Your task to perform on an android device: Open Google Chrome Image 0: 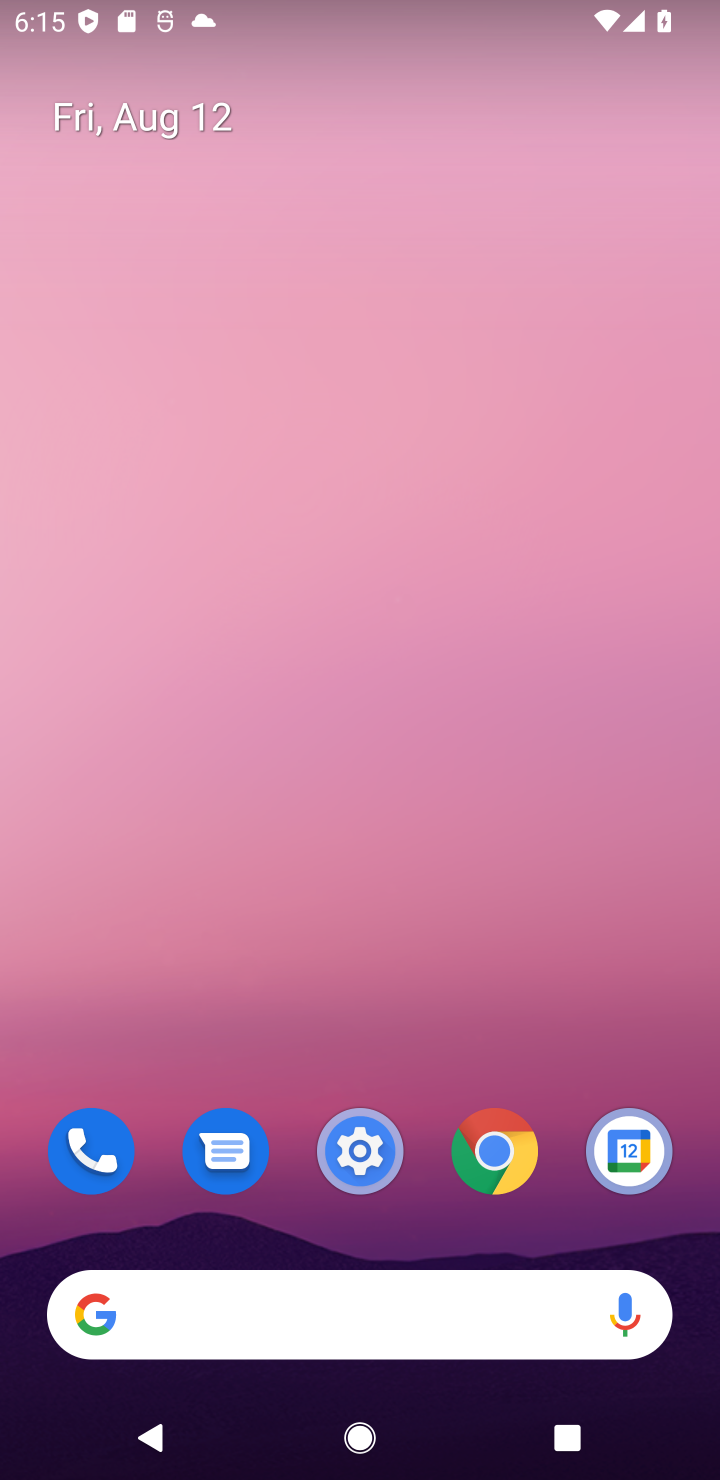
Step 0: drag from (556, 988) to (508, 118)
Your task to perform on an android device: Open Google Chrome Image 1: 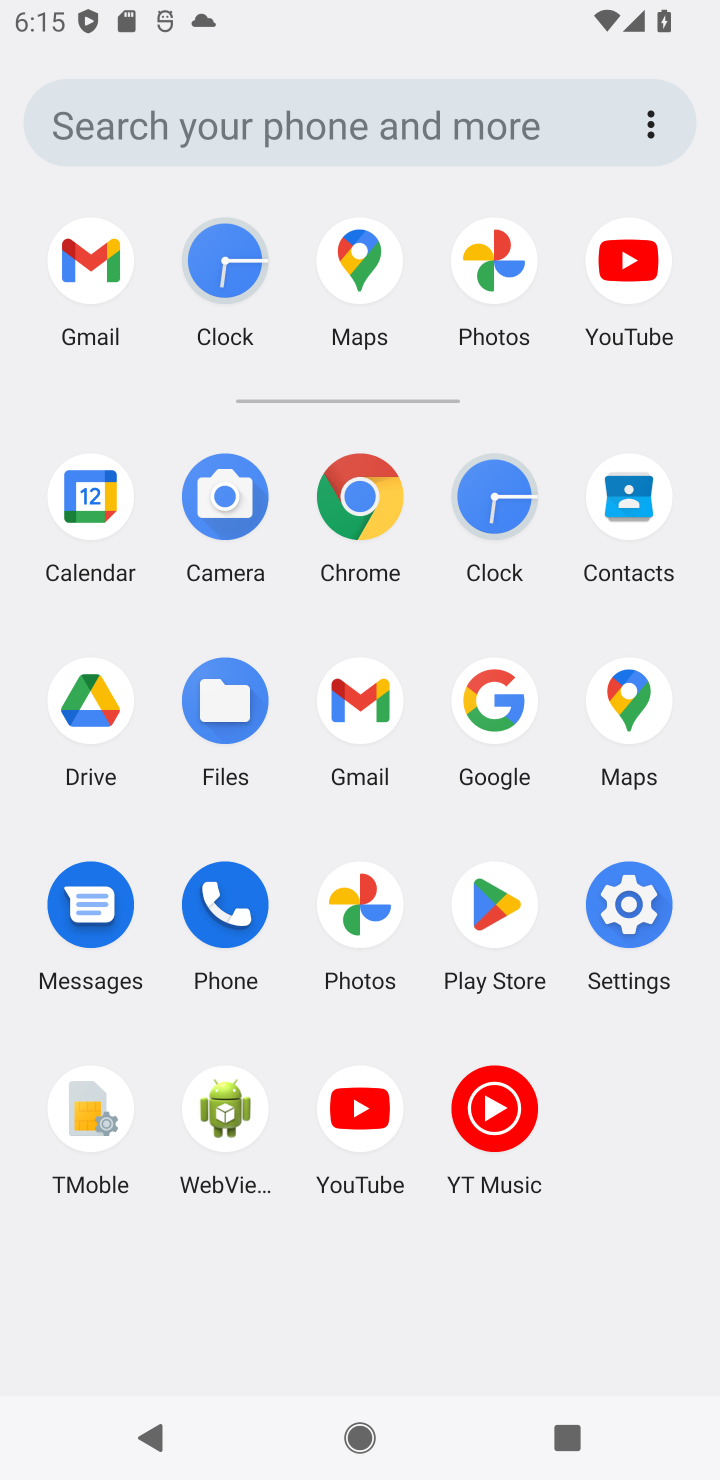
Step 1: click (366, 496)
Your task to perform on an android device: Open Google Chrome Image 2: 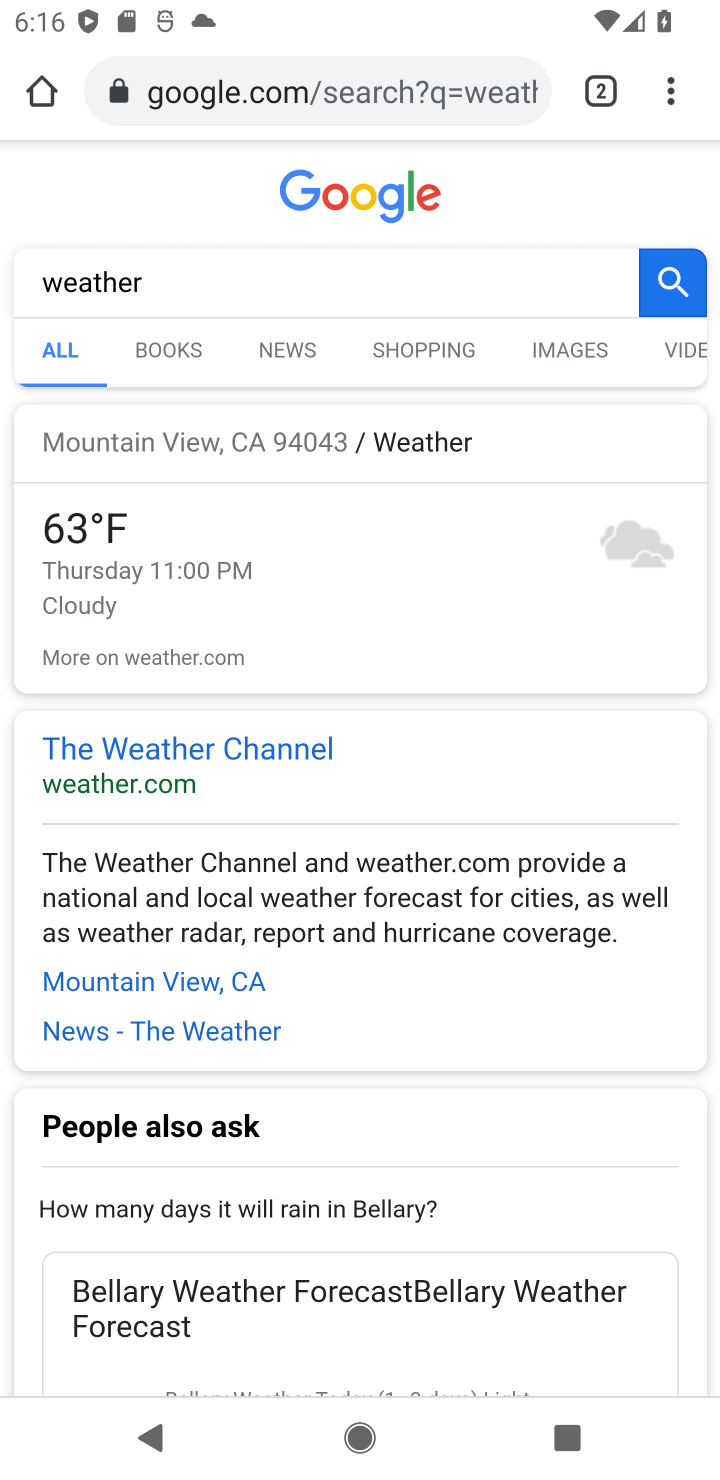
Step 2: task complete